Your task to perform on an android device: find snoozed emails in the gmail app Image 0: 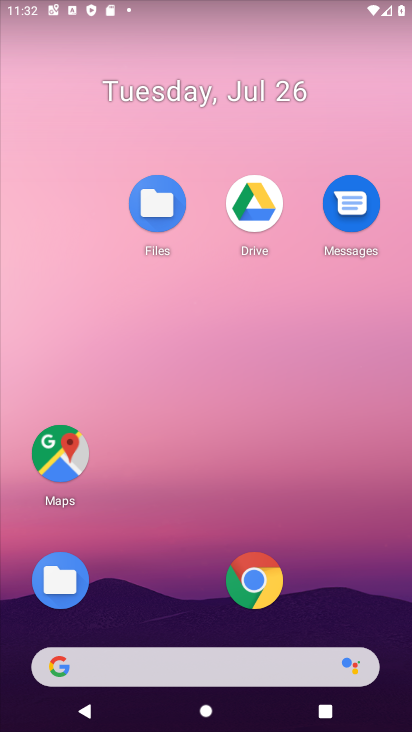
Step 0: drag from (168, 596) to (164, 181)
Your task to perform on an android device: find snoozed emails in the gmail app Image 1: 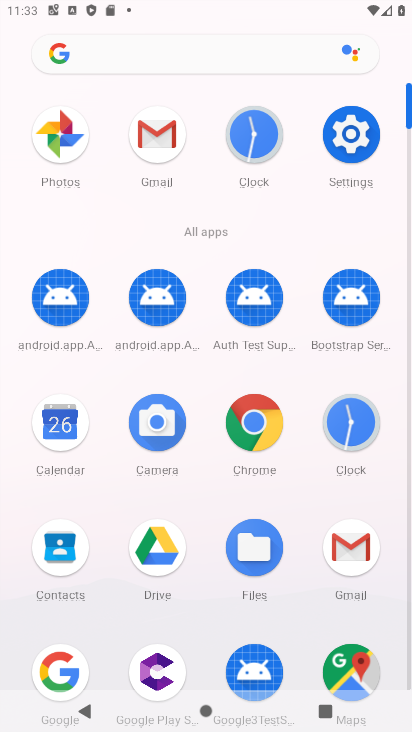
Step 1: click (181, 138)
Your task to perform on an android device: find snoozed emails in the gmail app Image 2: 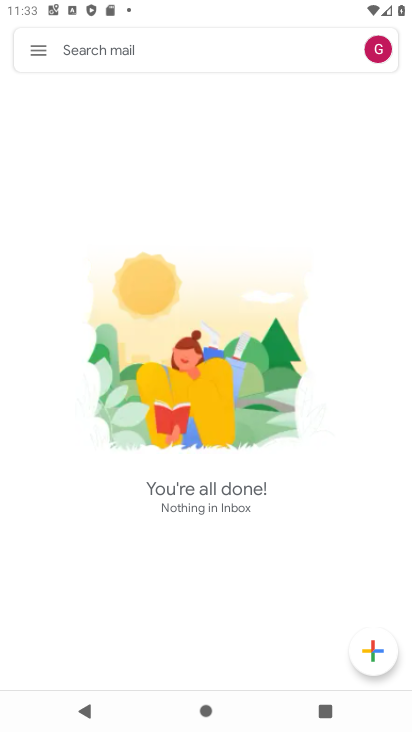
Step 2: click (31, 49)
Your task to perform on an android device: find snoozed emails in the gmail app Image 3: 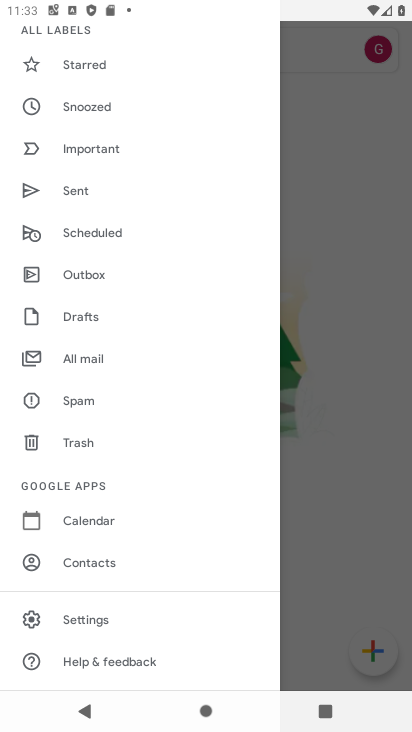
Step 3: click (135, 119)
Your task to perform on an android device: find snoozed emails in the gmail app Image 4: 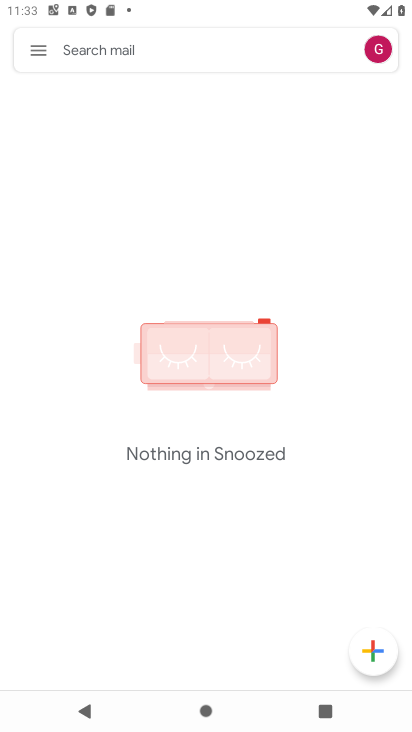
Step 4: task complete